Your task to perform on an android device: Open CNN.com Image 0: 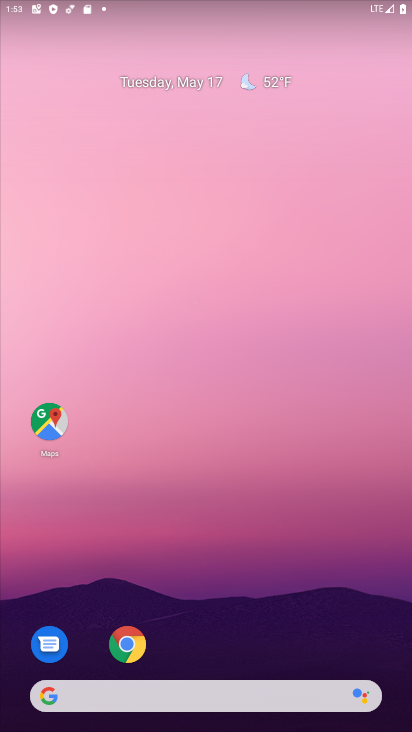
Step 0: drag from (211, 699) to (202, 321)
Your task to perform on an android device: Open CNN.com Image 1: 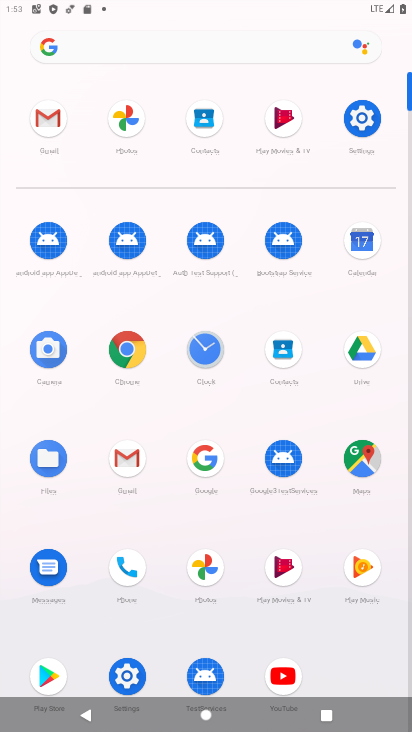
Step 1: click (120, 355)
Your task to perform on an android device: Open CNN.com Image 2: 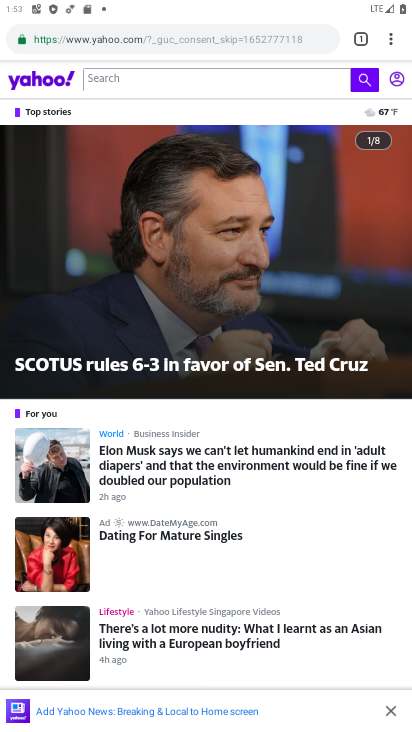
Step 2: click (193, 41)
Your task to perform on an android device: Open CNN.com Image 3: 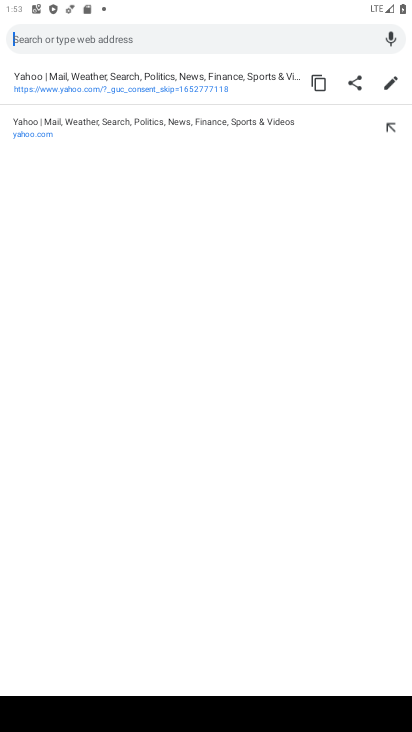
Step 3: type "cnn.com"
Your task to perform on an android device: Open CNN.com Image 4: 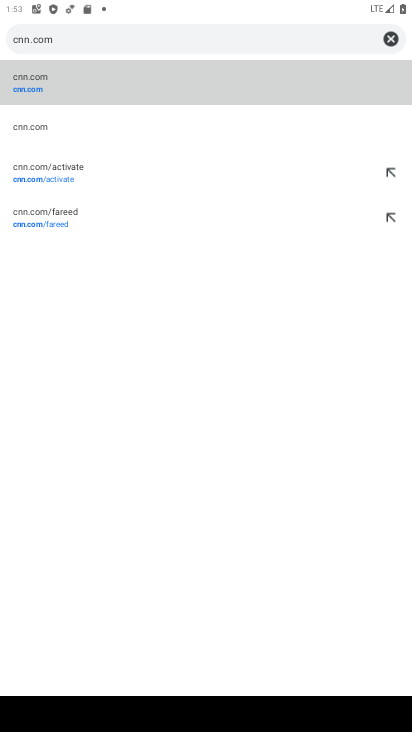
Step 4: click (48, 93)
Your task to perform on an android device: Open CNN.com Image 5: 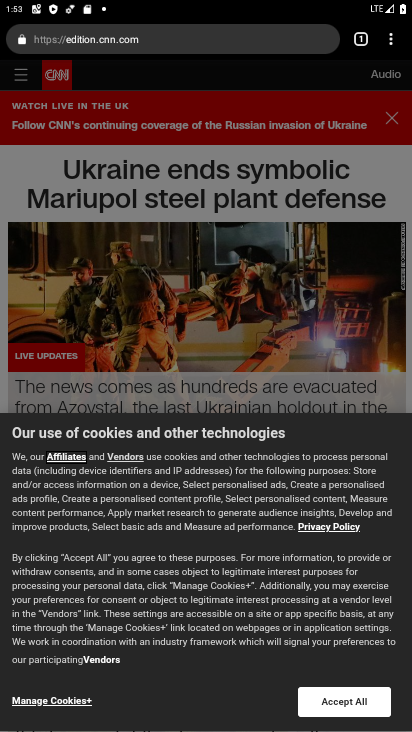
Step 5: task complete